Your task to perform on an android device: toggle translation in the chrome app Image 0: 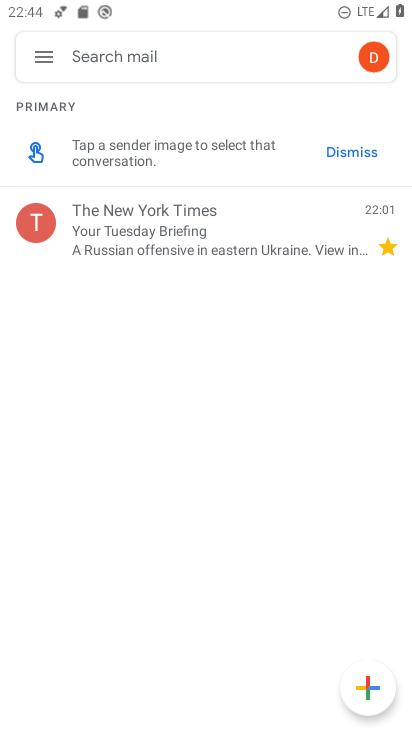
Step 0: press home button
Your task to perform on an android device: toggle translation in the chrome app Image 1: 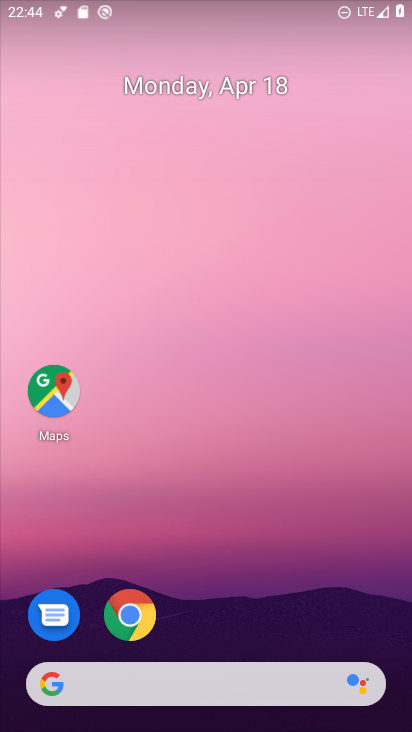
Step 1: click (139, 622)
Your task to perform on an android device: toggle translation in the chrome app Image 2: 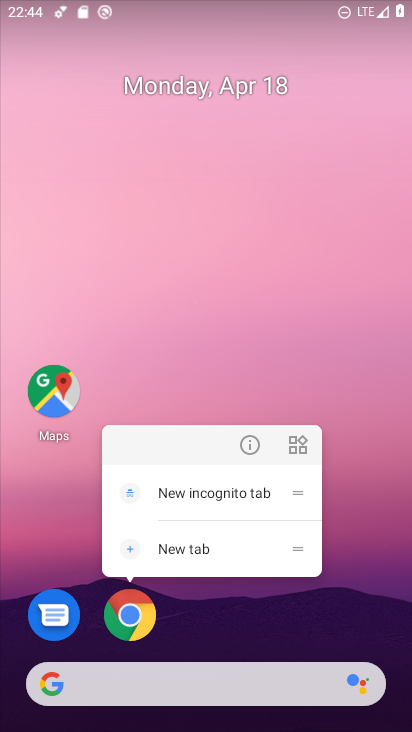
Step 2: click (135, 614)
Your task to perform on an android device: toggle translation in the chrome app Image 3: 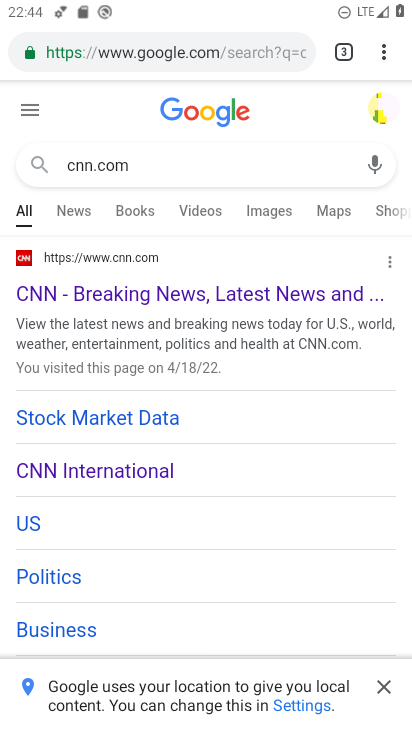
Step 3: click (384, 50)
Your task to perform on an android device: toggle translation in the chrome app Image 4: 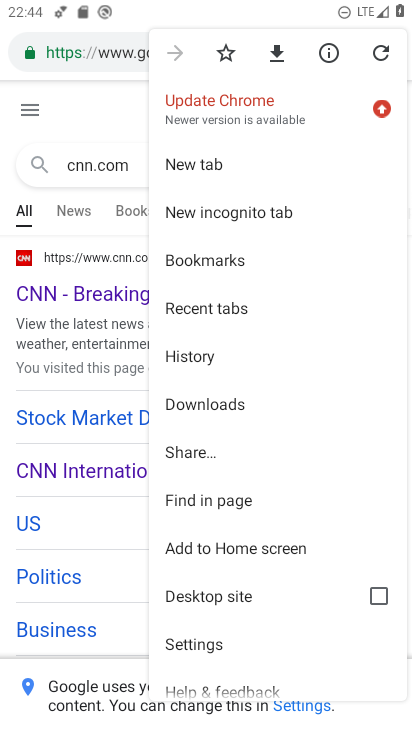
Step 4: click (200, 646)
Your task to perform on an android device: toggle translation in the chrome app Image 5: 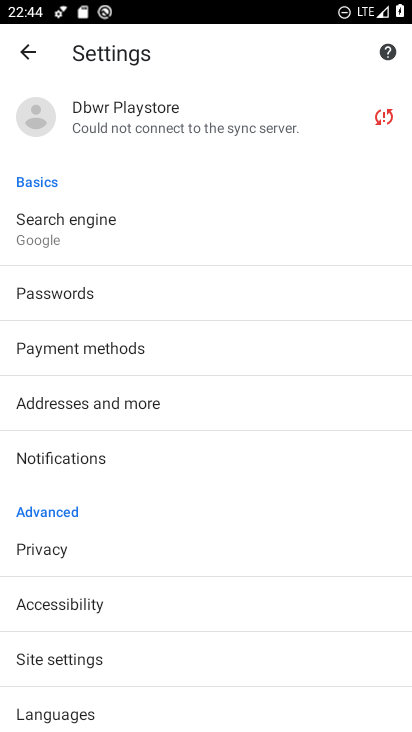
Step 5: click (86, 722)
Your task to perform on an android device: toggle translation in the chrome app Image 6: 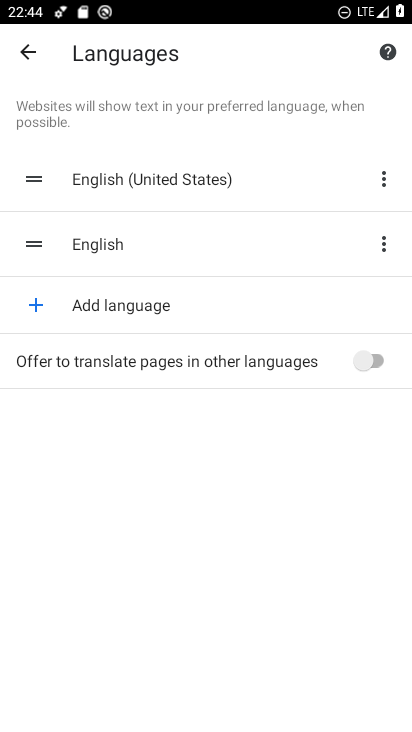
Step 6: click (370, 369)
Your task to perform on an android device: toggle translation in the chrome app Image 7: 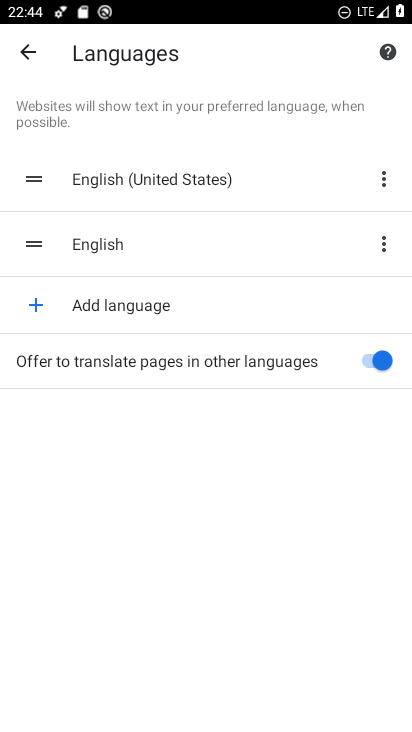
Step 7: task complete